Your task to perform on an android device: Open internet settings Image 0: 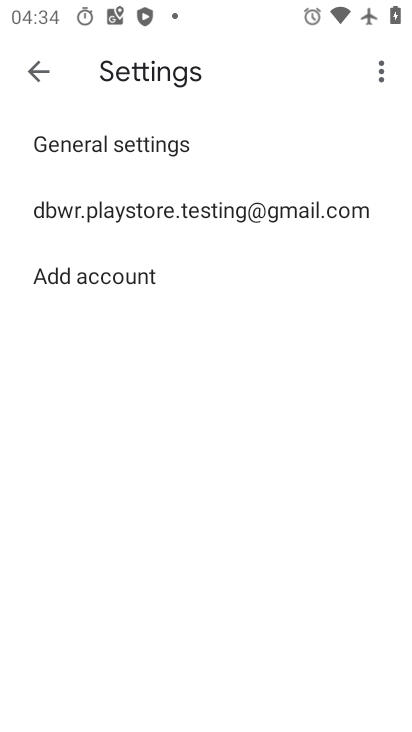
Step 0: press home button
Your task to perform on an android device: Open internet settings Image 1: 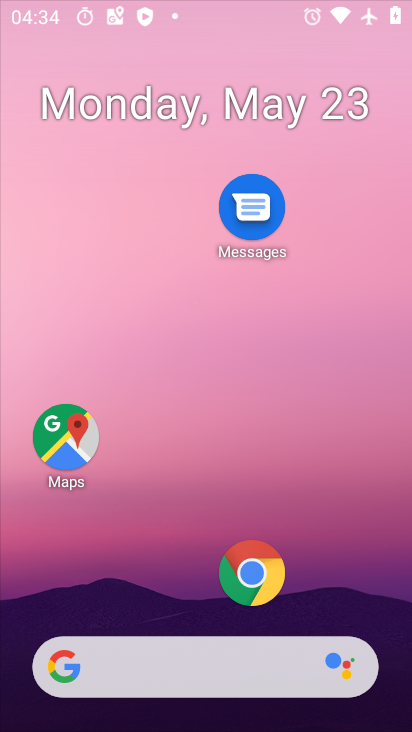
Step 1: drag from (318, 679) to (325, 0)
Your task to perform on an android device: Open internet settings Image 2: 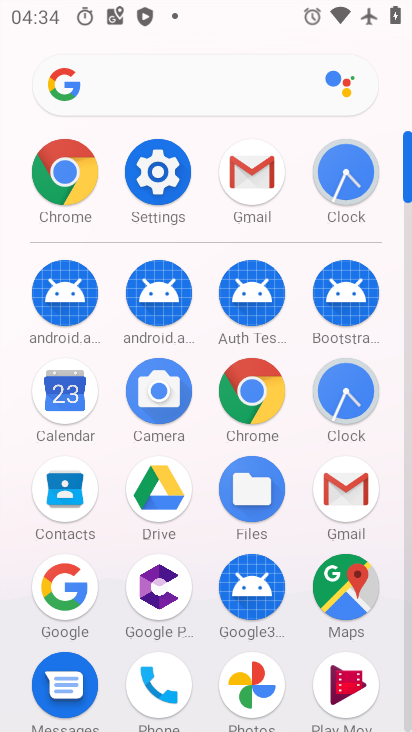
Step 2: click (162, 163)
Your task to perform on an android device: Open internet settings Image 3: 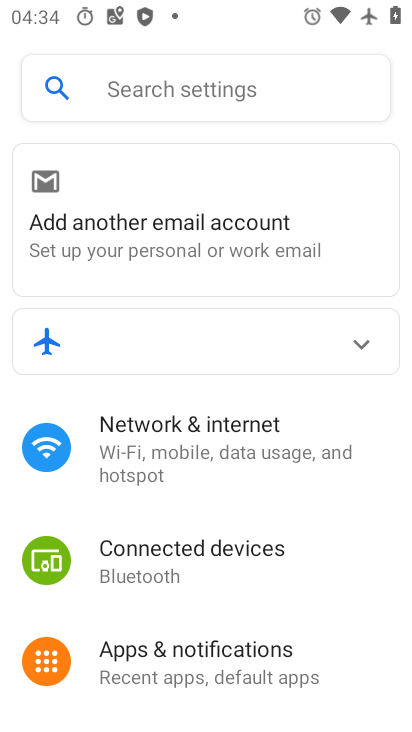
Step 3: click (208, 469)
Your task to perform on an android device: Open internet settings Image 4: 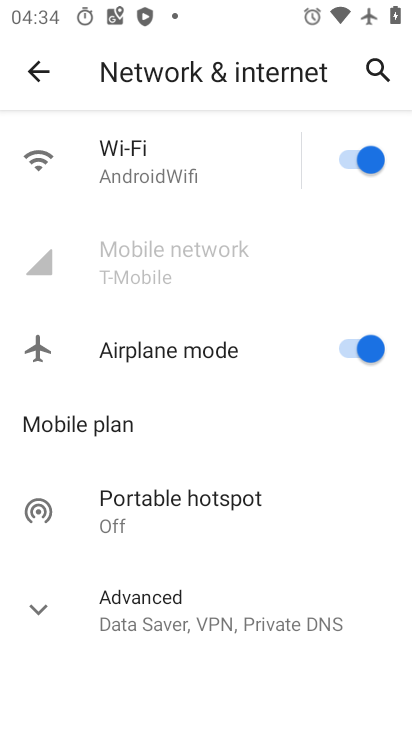
Step 4: task complete